Your task to perform on an android device: turn off data saver in the chrome app Image 0: 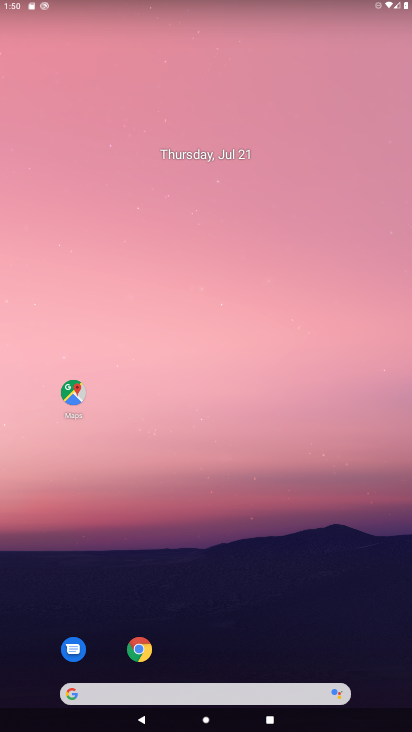
Step 0: drag from (249, 504) to (255, 97)
Your task to perform on an android device: turn off data saver in the chrome app Image 1: 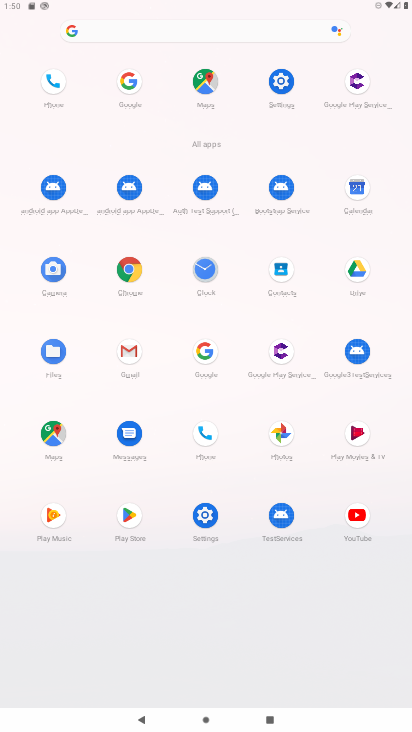
Step 1: click (132, 266)
Your task to perform on an android device: turn off data saver in the chrome app Image 2: 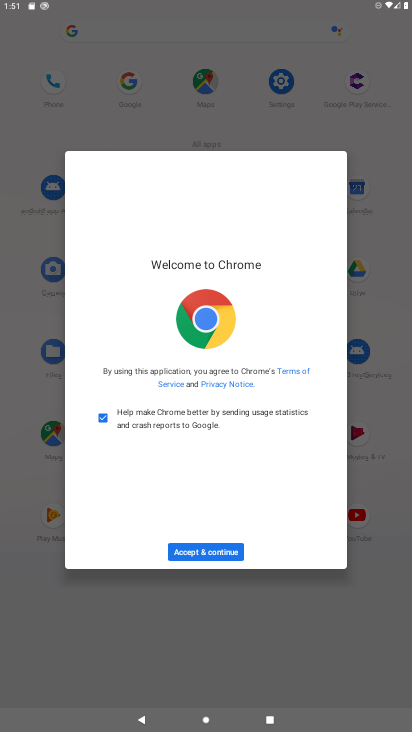
Step 2: click (234, 558)
Your task to perform on an android device: turn off data saver in the chrome app Image 3: 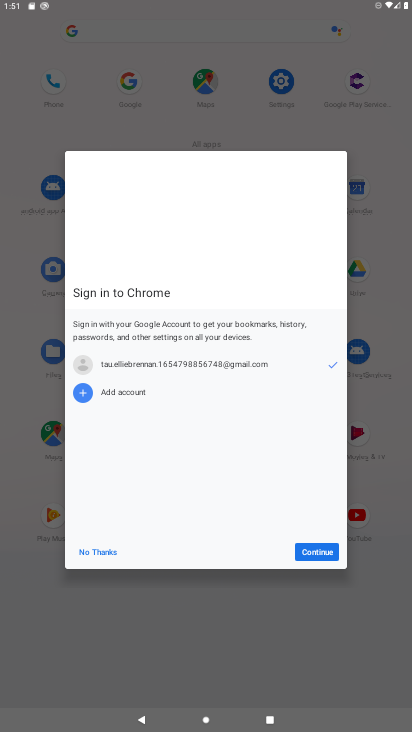
Step 3: click (116, 553)
Your task to perform on an android device: turn off data saver in the chrome app Image 4: 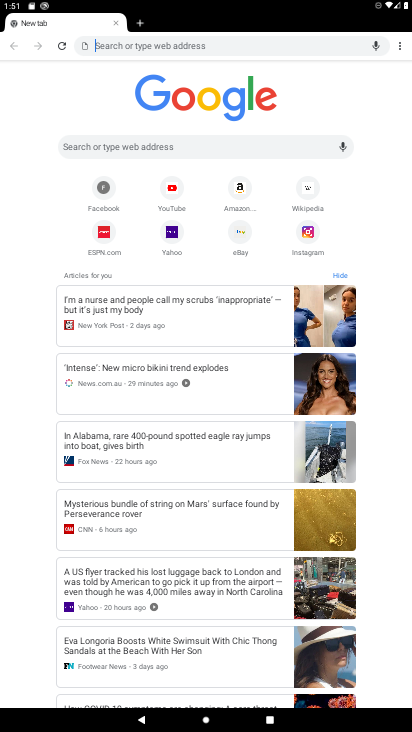
Step 4: drag from (401, 46) to (299, 216)
Your task to perform on an android device: turn off data saver in the chrome app Image 5: 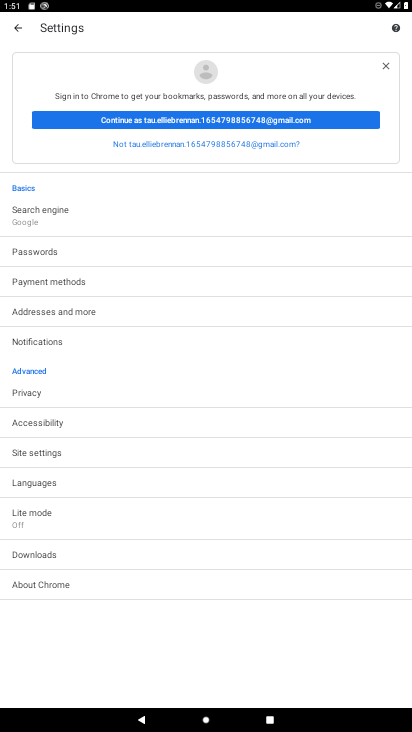
Step 5: click (77, 514)
Your task to perform on an android device: turn off data saver in the chrome app Image 6: 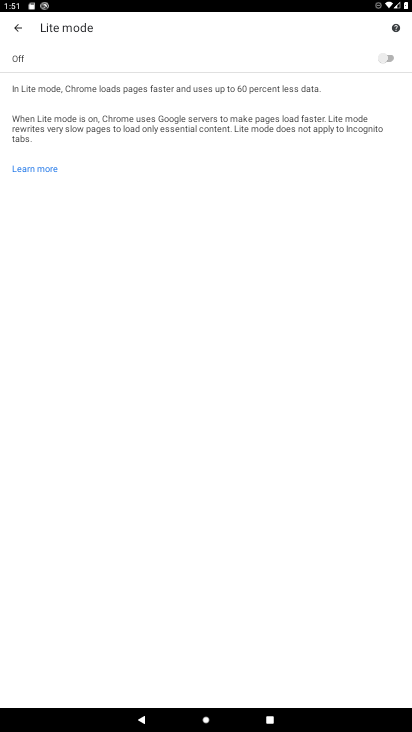
Step 6: task complete